Your task to perform on an android device: change the clock display to show seconds Image 0: 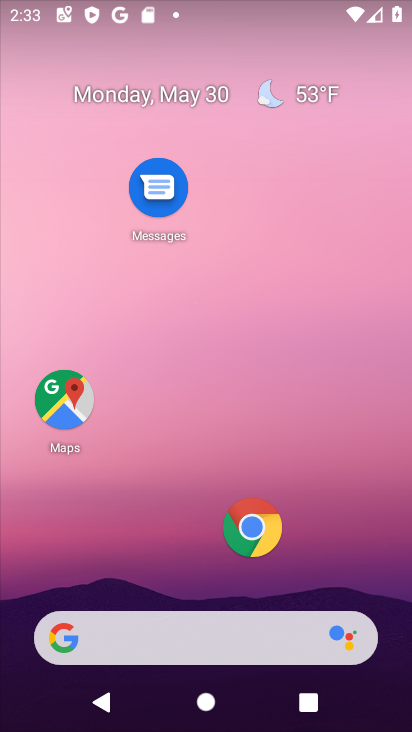
Step 0: drag from (185, 561) to (282, 92)
Your task to perform on an android device: change the clock display to show seconds Image 1: 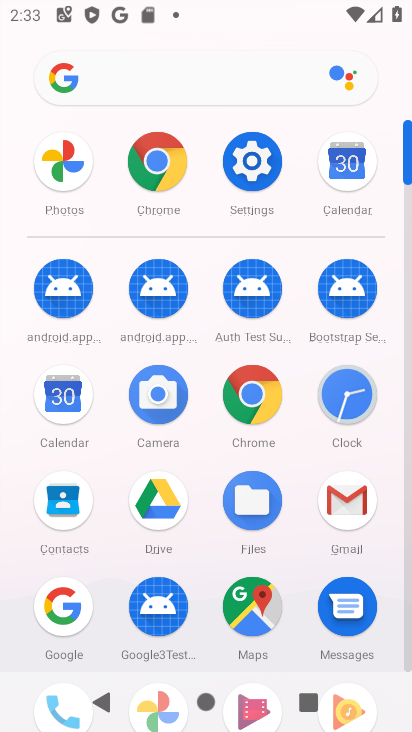
Step 1: click (338, 411)
Your task to perform on an android device: change the clock display to show seconds Image 2: 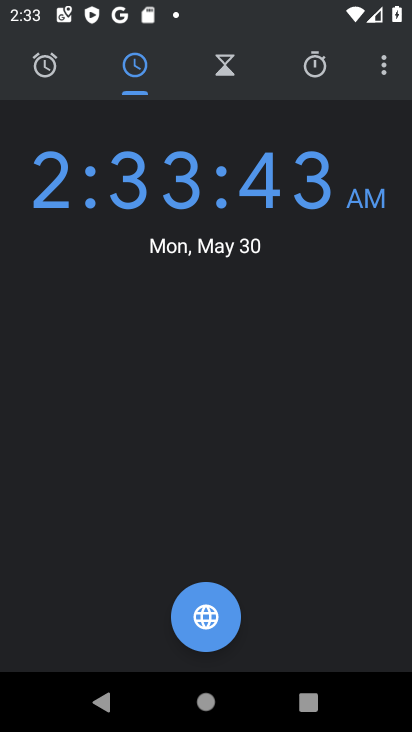
Step 2: click (380, 78)
Your task to perform on an android device: change the clock display to show seconds Image 3: 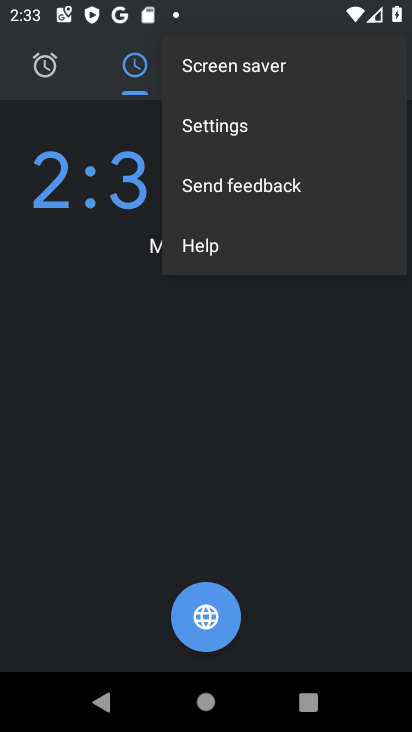
Step 3: click (293, 135)
Your task to perform on an android device: change the clock display to show seconds Image 4: 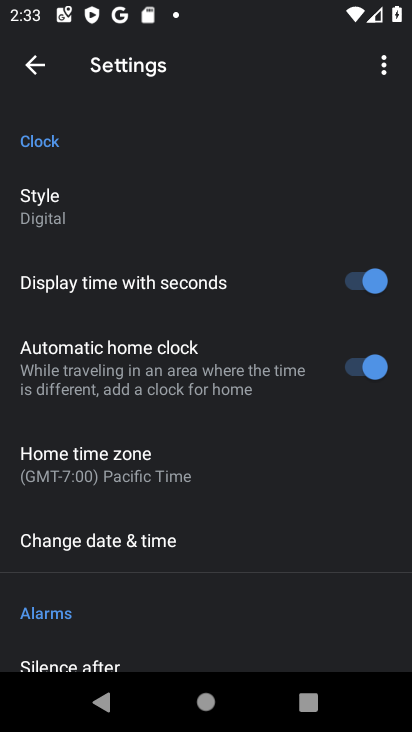
Step 4: task complete